Your task to perform on an android device: Open privacy settings Image 0: 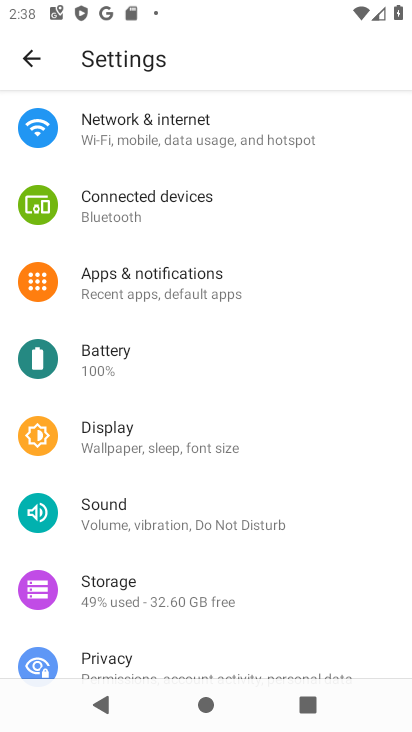
Step 0: drag from (145, 629) to (173, 392)
Your task to perform on an android device: Open privacy settings Image 1: 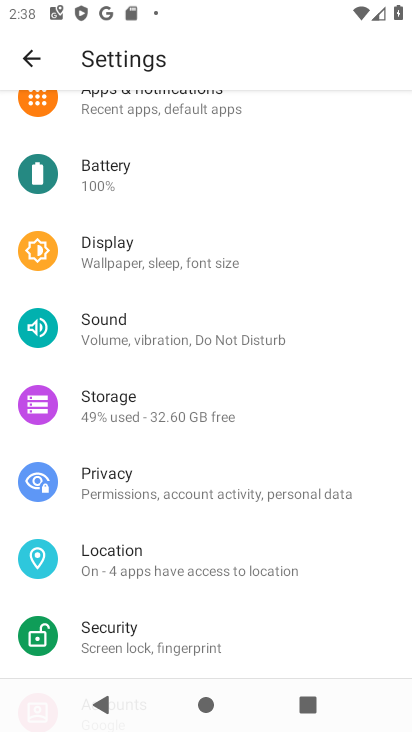
Step 1: click (116, 495)
Your task to perform on an android device: Open privacy settings Image 2: 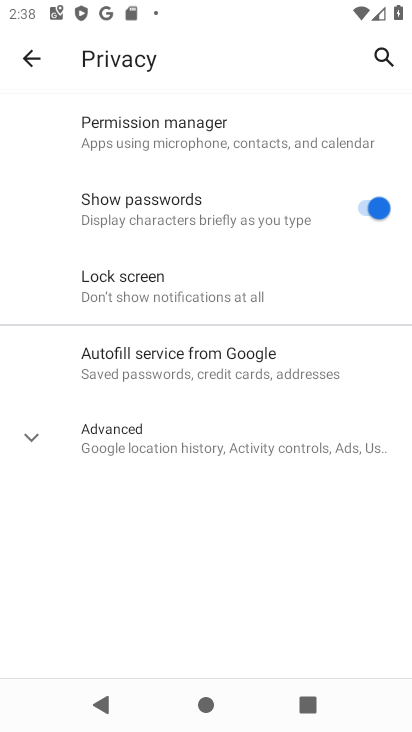
Step 2: task complete